Your task to perform on an android device: show emergency info Image 0: 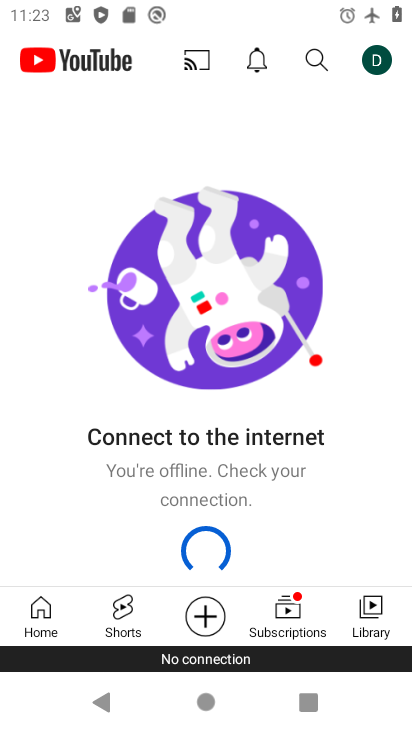
Step 0: press home button
Your task to perform on an android device: show emergency info Image 1: 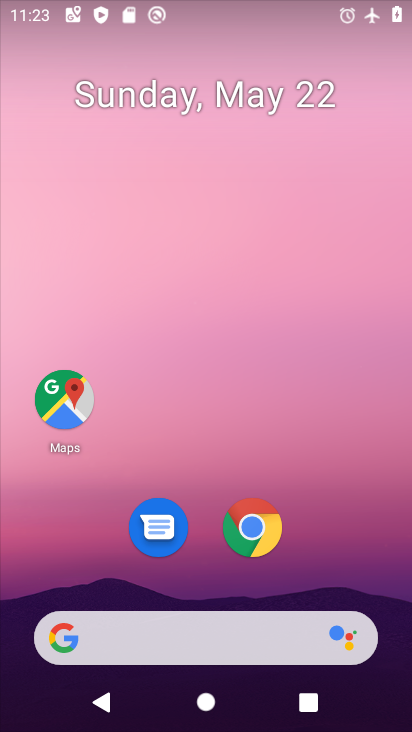
Step 1: drag from (355, 574) to (337, 282)
Your task to perform on an android device: show emergency info Image 2: 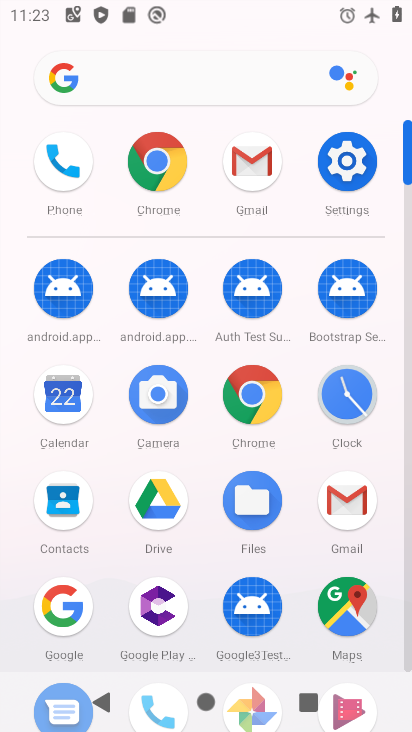
Step 2: click (336, 190)
Your task to perform on an android device: show emergency info Image 3: 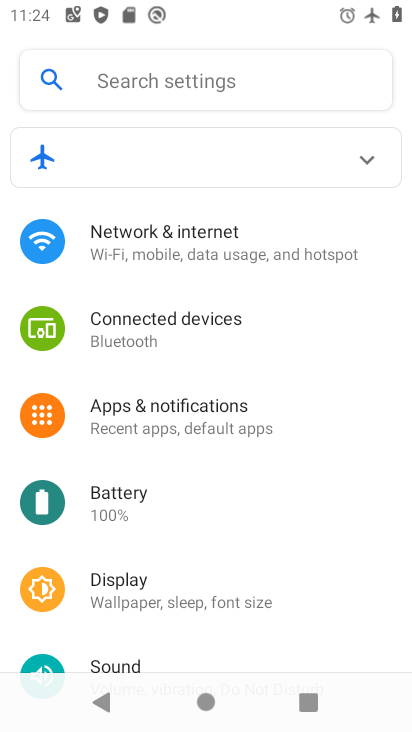
Step 3: drag from (247, 554) to (292, 311)
Your task to perform on an android device: show emergency info Image 4: 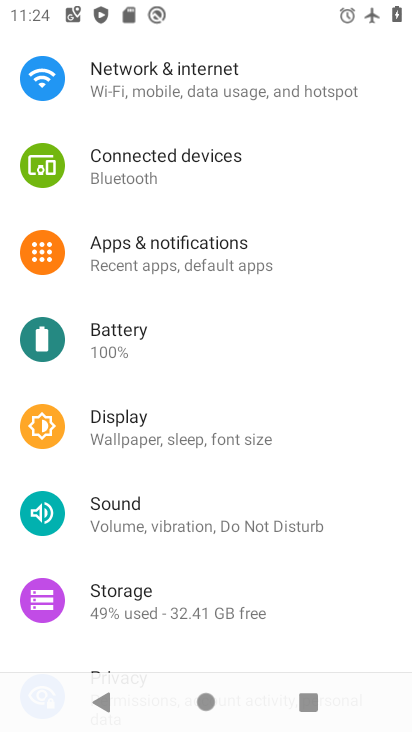
Step 4: drag from (181, 621) to (204, 374)
Your task to perform on an android device: show emergency info Image 5: 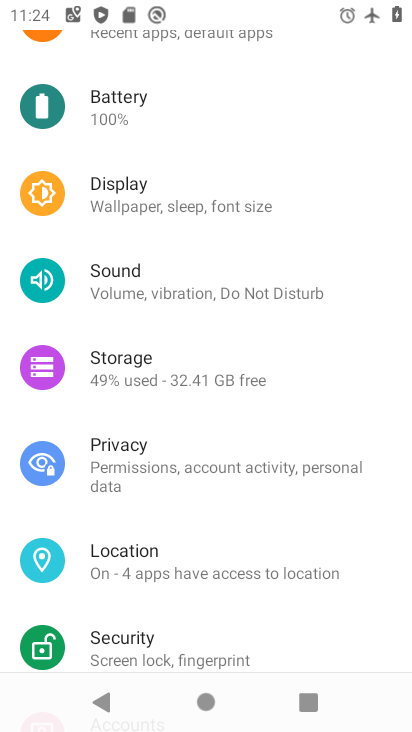
Step 5: click (272, 93)
Your task to perform on an android device: show emergency info Image 6: 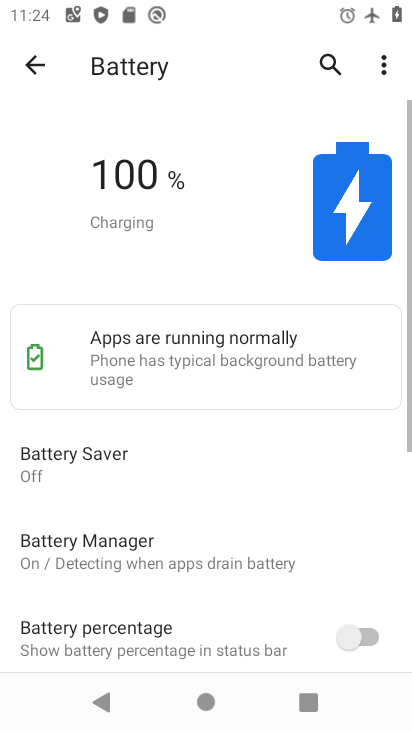
Step 6: drag from (257, 626) to (263, 511)
Your task to perform on an android device: show emergency info Image 7: 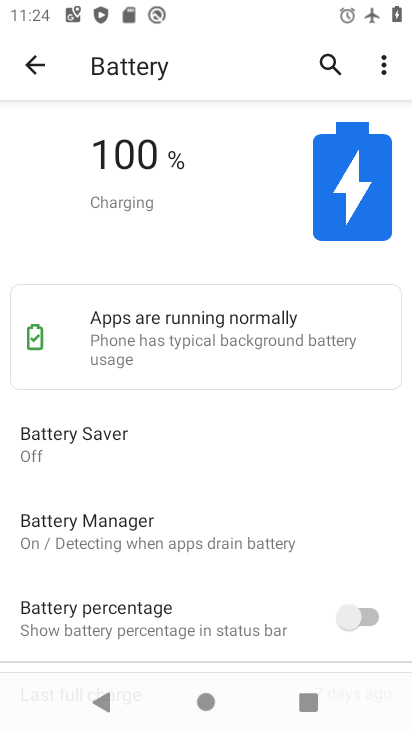
Step 7: click (43, 73)
Your task to perform on an android device: show emergency info Image 8: 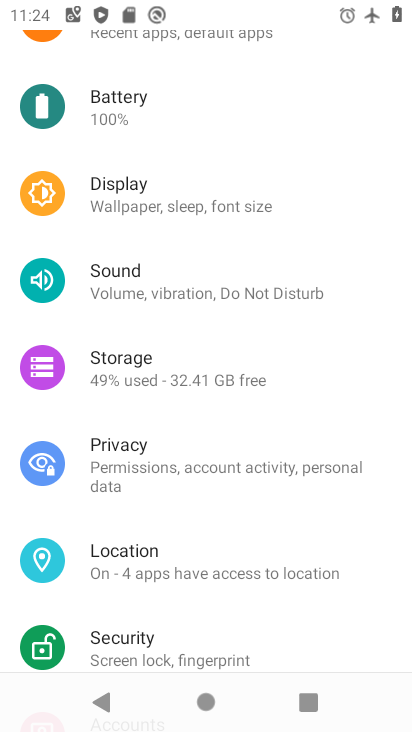
Step 8: drag from (180, 623) to (258, 88)
Your task to perform on an android device: show emergency info Image 9: 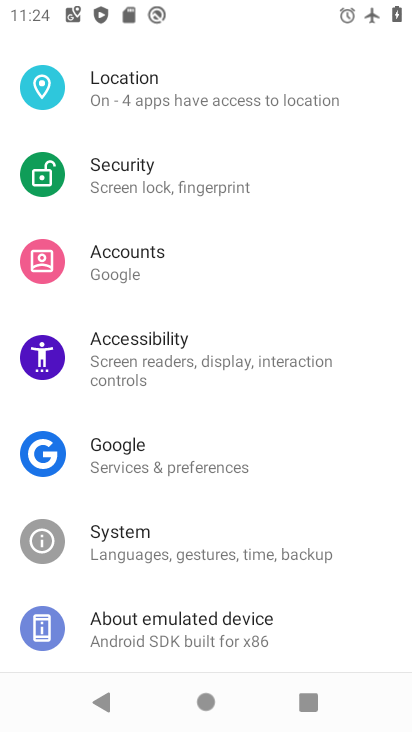
Step 9: click (170, 629)
Your task to perform on an android device: show emergency info Image 10: 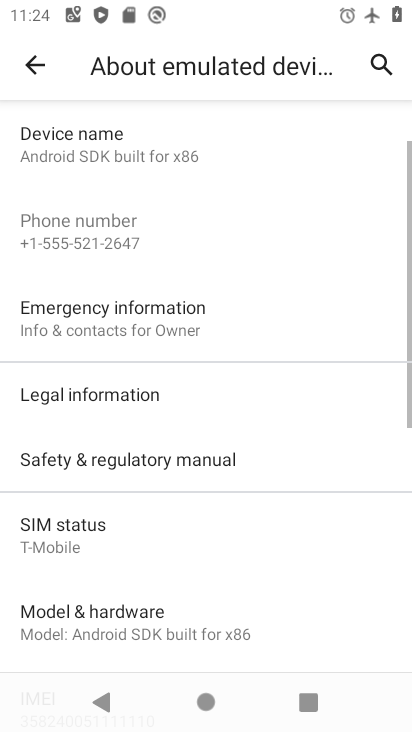
Step 10: click (171, 470)
Your task to perform on an android device: show emergency info Image 11: 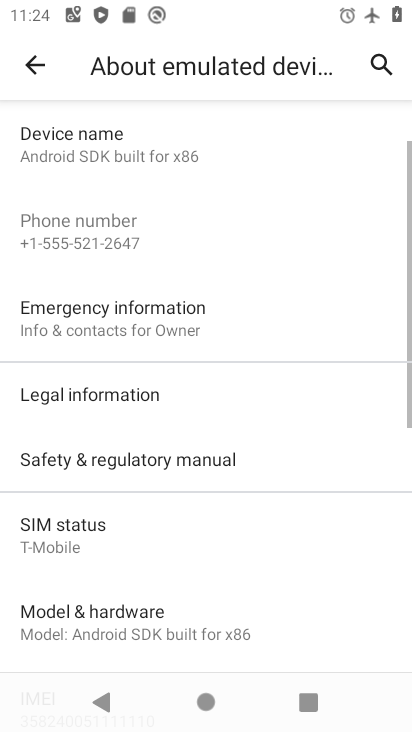
Step 11: drag from (171, 470) to (167, 355)
Your task to perform on an android device: show emergency info Image 12: 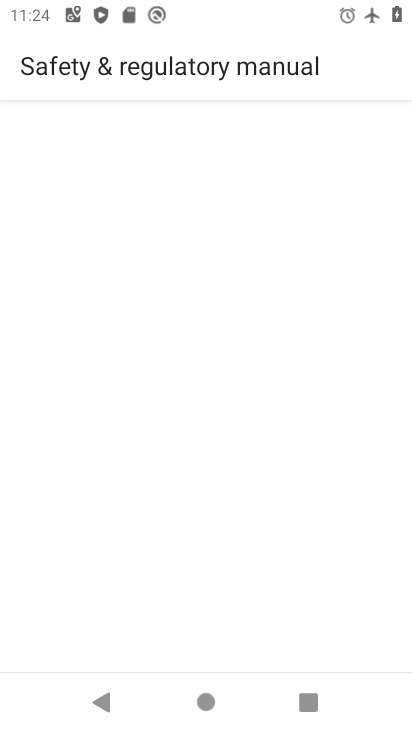
Step 12: click (106, 700)
Your task to perform on an android device: show emergency info Image 13: 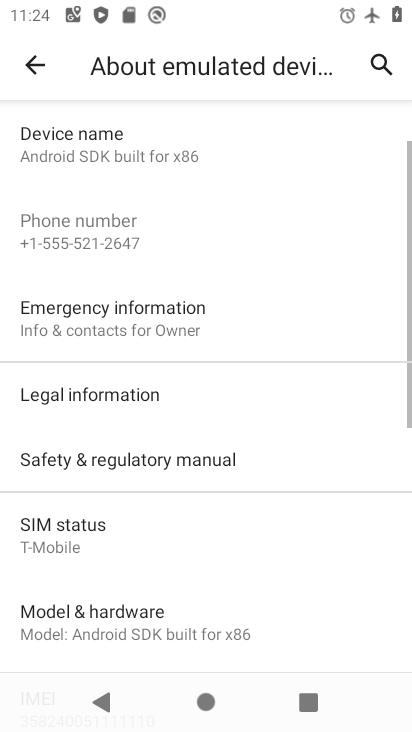
Step 13: click (96, 348)
Your task to perform on an android device: show emergency info Image 14: 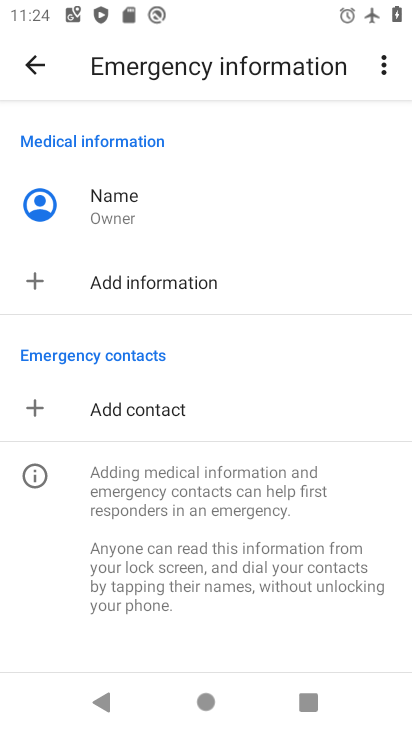
Step 14: task complete